Your task to perform on an android device: add a contact Image 0: 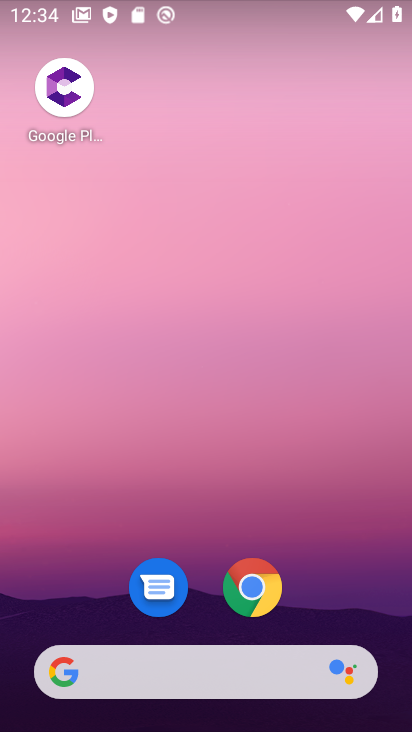
Step 0: drag from (317, 590) to (260, 53)
Your task to perform on an android device: add a contact Image 1: 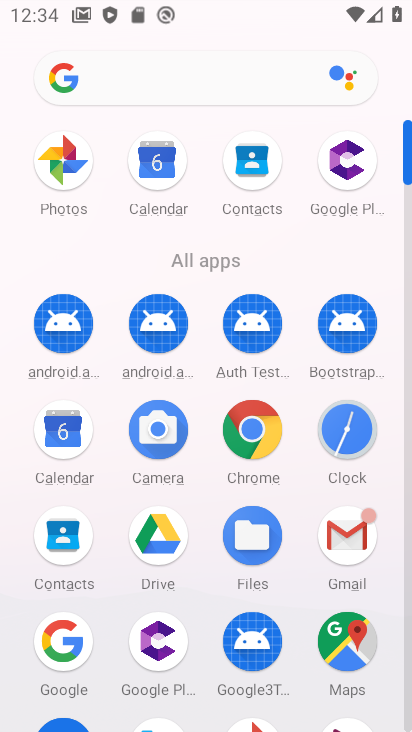
Step 1: click (69, 581)
Your task to perform on an android device: add a contact Image 2: 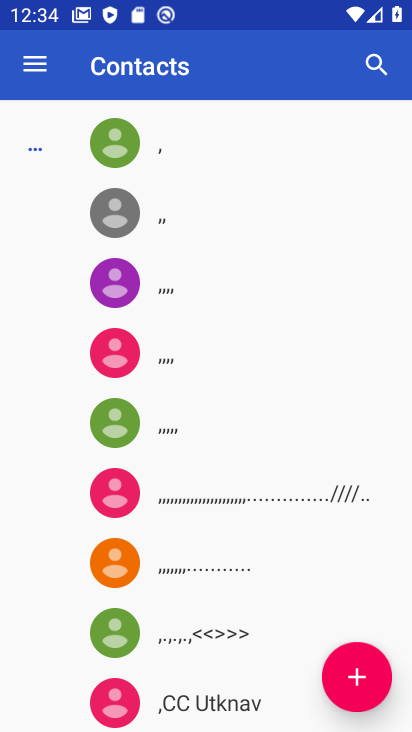
Step 2: click (379, 655)
Your task to perform on an android device: add a contact Image 3: 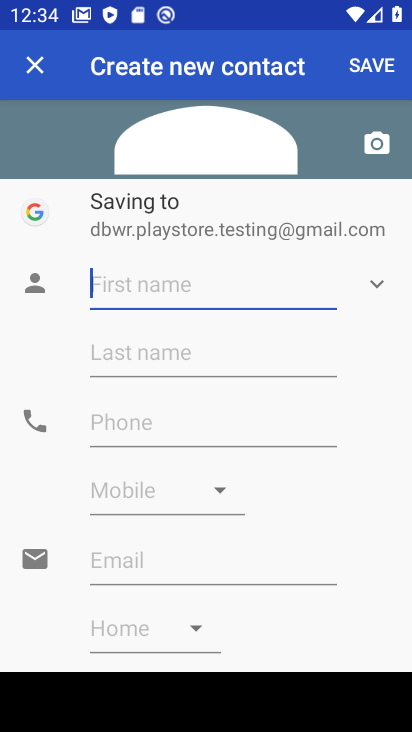
Step 3: click (148, 276)
Your task to perform on an android device: add a contact Image 4: 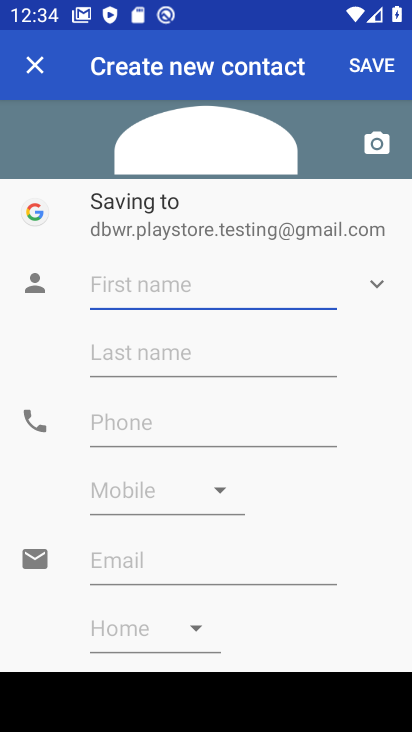
Step 4: type "anita"
Your task to perform on an android device: add a contact Image 5: 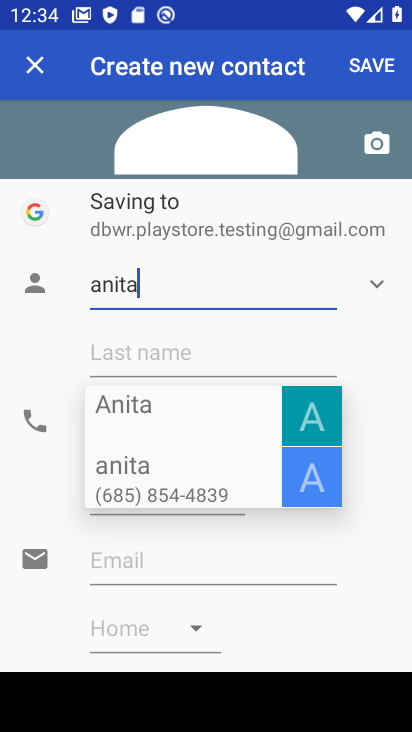
Step 5: click (191, 421)
Your task to perform on an android device: add a contact Image 6: 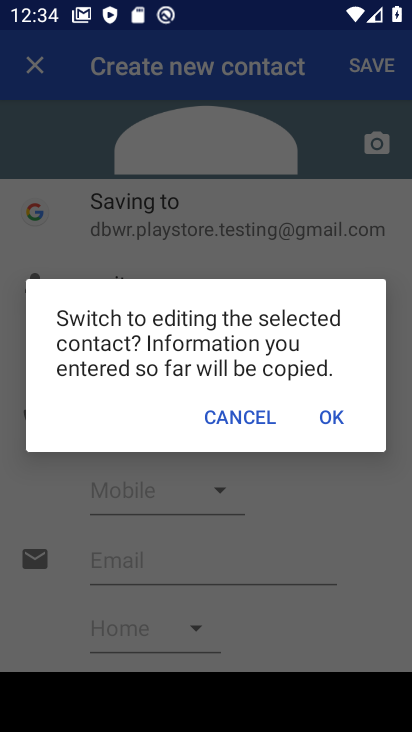
Step 6: click (239, 415)
Your task to perform on an android device: add a contact Image 7: 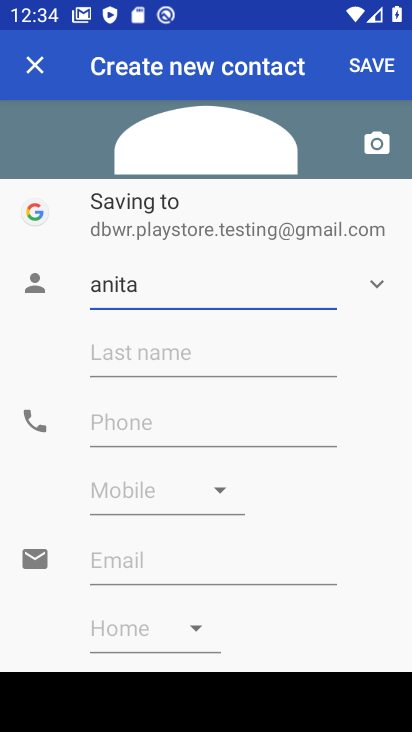
Step 7: click (158, 374)
Your task to perform on an android device: add a contact Image 8: 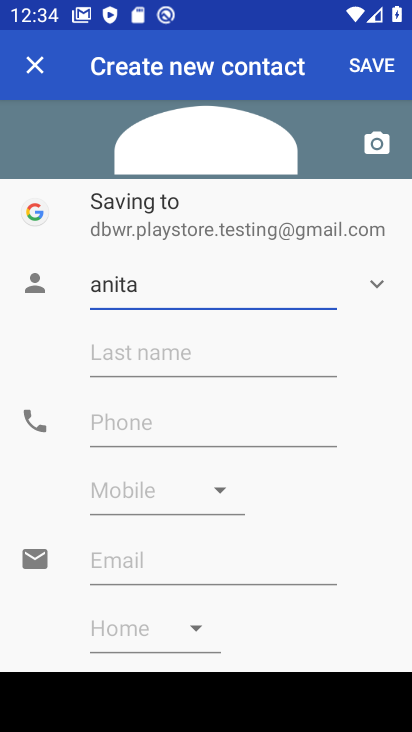
Step 8: click (156, 365)
Your task to perform on an android device: add a contact Image 9: 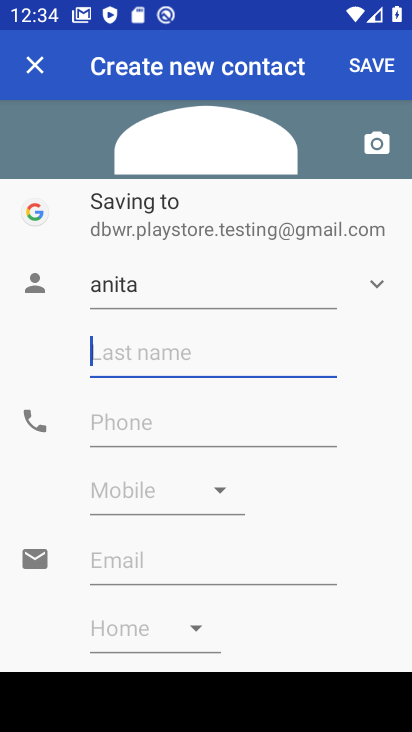
Step 9: click (152, 362)
Your task to perform on an android device: add a contact Image 10: 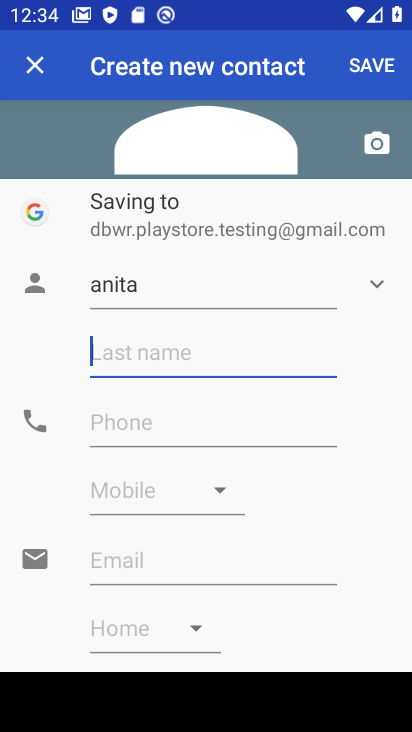
Step 10: type "krishna"
Your task to perform on an android device: add a contact Image 11: 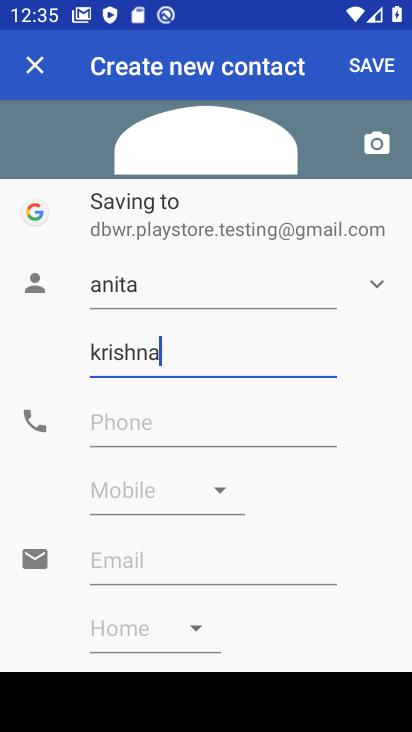
Step 11: click (134, 412)
Your task to perform on an android device: add a contact Image 12: 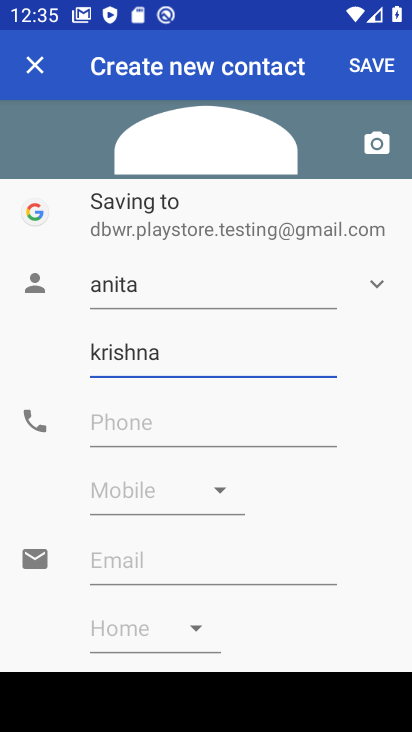
Step 12: click (163, 437)
Your task to perform on an android device: add a contact Image 13: 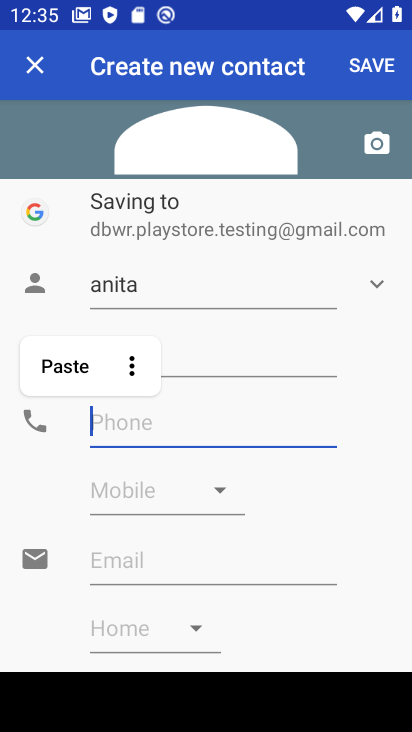
Step 13: type "6767767667"
Your task to perform on an android device: add a contact Image 14: 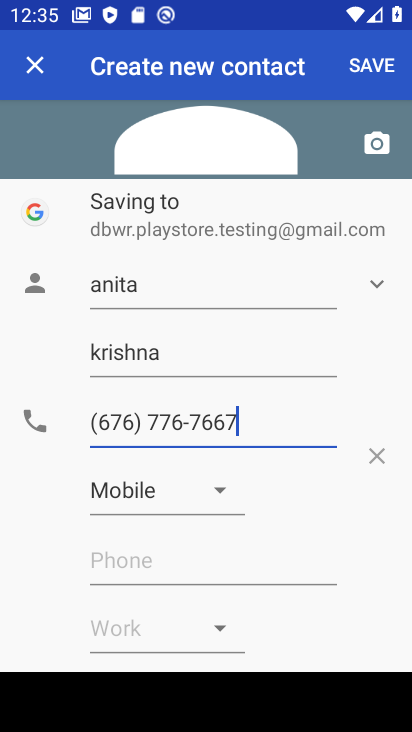
Step 14: click (371, 58)
Your task to perform on an android device: add a contact Image 15: 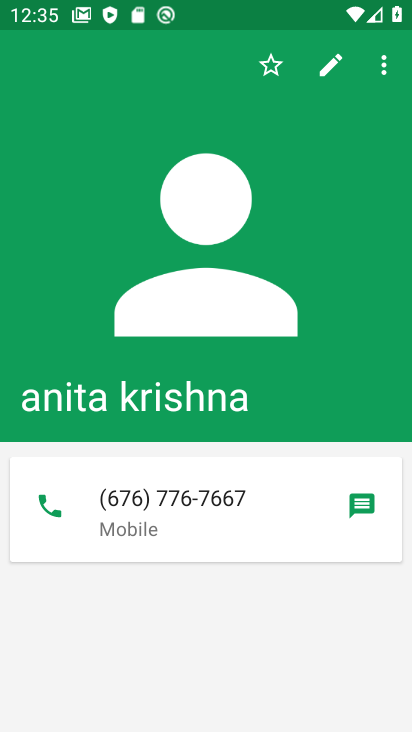
Step 15: task complete